Your task to perform on an android device: turn on the 12-hour format for clock Image 0: 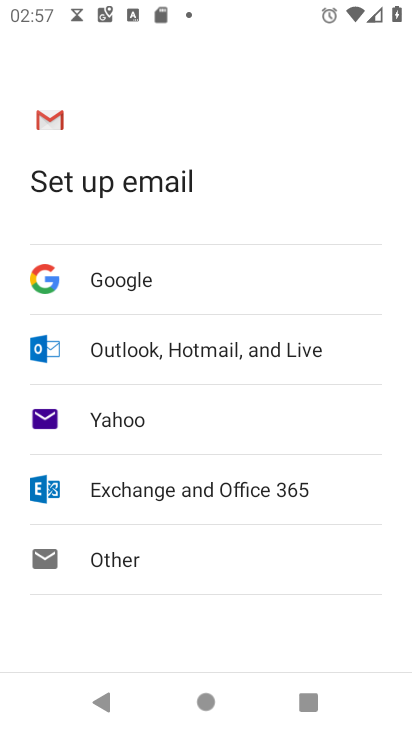
Step 0: press home button
Your task to perform on an android device: turn on the 12-hour format for clock Image 1: 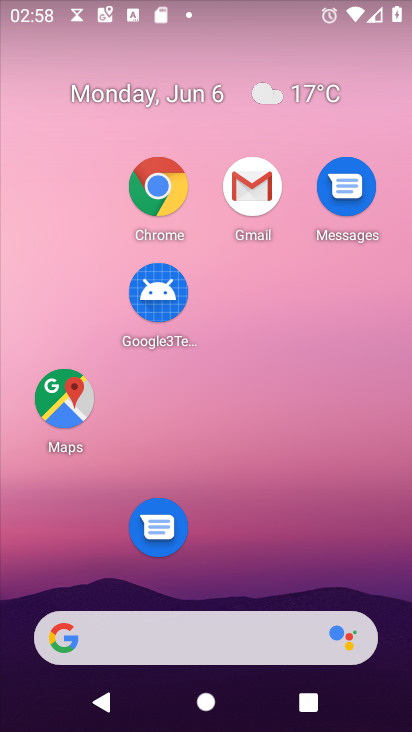
Step 1: drag from (295, 455) to (281, 99)
Your task to perform on an android device: turn on the 12-hour format for clock Image 2: 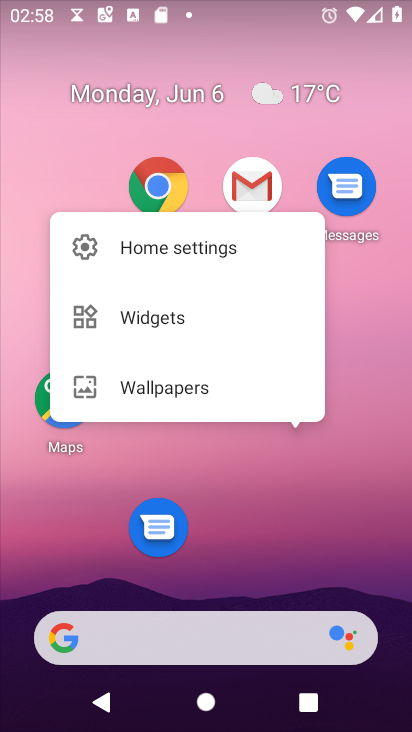
Step 2: click (345, 449)
Your task to perform on an android device: turn on the 12-hour format for clock Image 3: 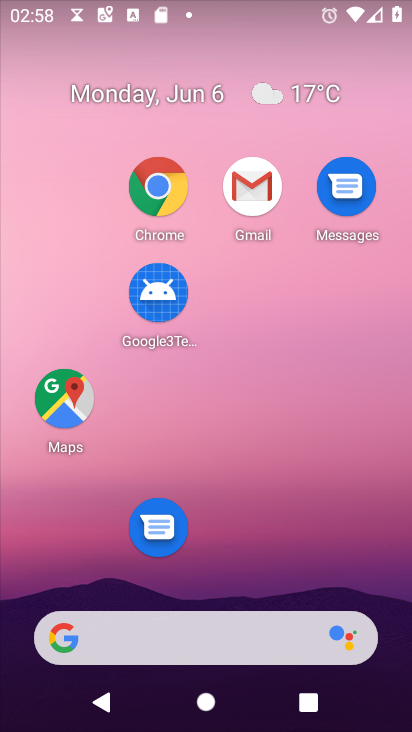
Step 3: drag from (270, 511) to (262, 219)
Your task to perform on an android device: turn on the 12-hour format for clock Image 4: 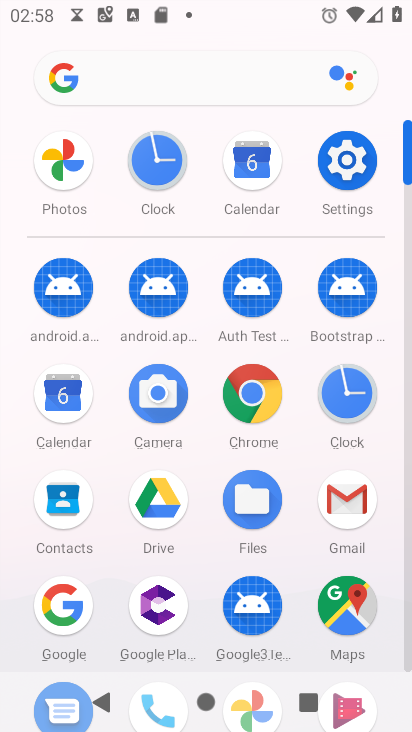
Step 4: click (158, 179)
Your task to perform on an android device: turn on the 12-hour format for clock Image 5: 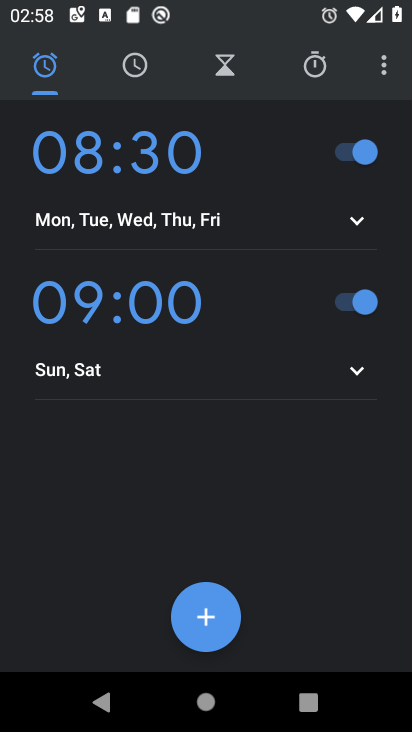
Step 5: click (366, 80)
Your task to perform on an android device: turn on the 12-hour format for clock Image 6: 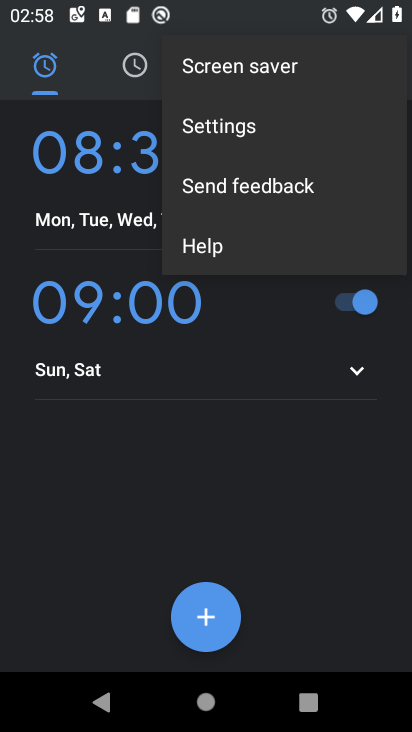
Step 6: click (201, 134)
Your task to perform on an android device: turn on the 12-hour format for clock Image 7: 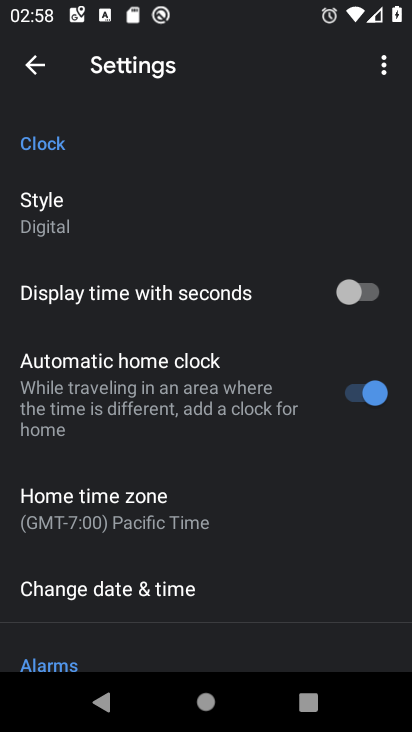
Step 7: drag from (296, 520) to (250, 135)
Your task to perform on an android device: turn on the 12-hour format for clock Image 8: 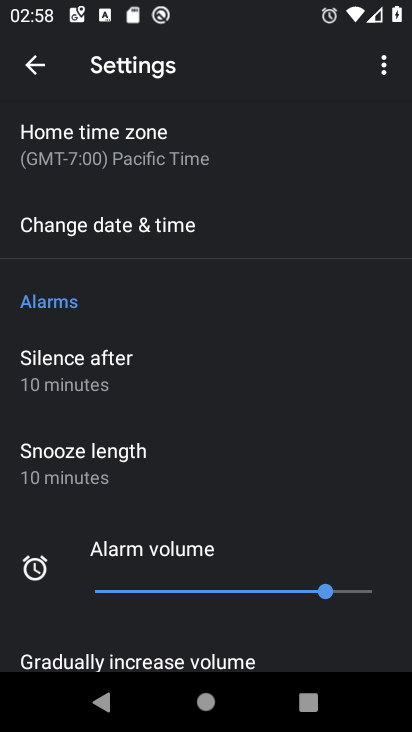
Step 8: click (234, 214)
Your task to perform on an android device: turn on the 12-hour format for clock Image 9: 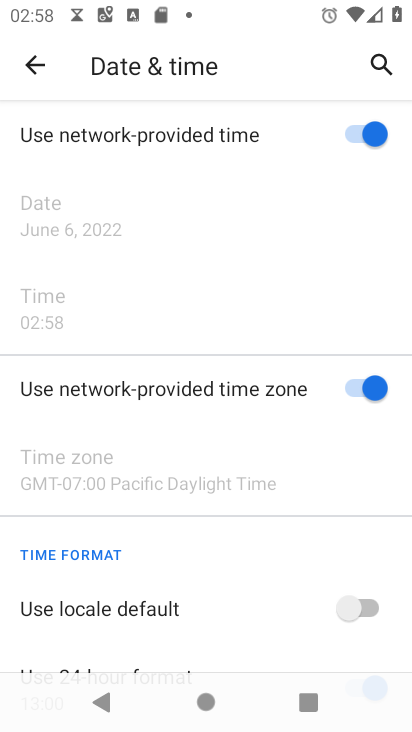
Step 9: drag from (203, 421) to (192, 141)
Your task to perform on an android device: turn on the 12-hour format for clock Image 10: 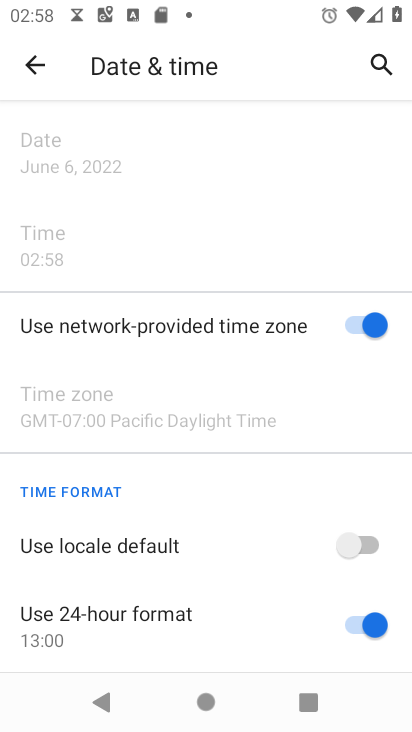
Step 10: click (359, 626)
Your task to perform on an android device: turn on the 12-hour format for clock Image 11: 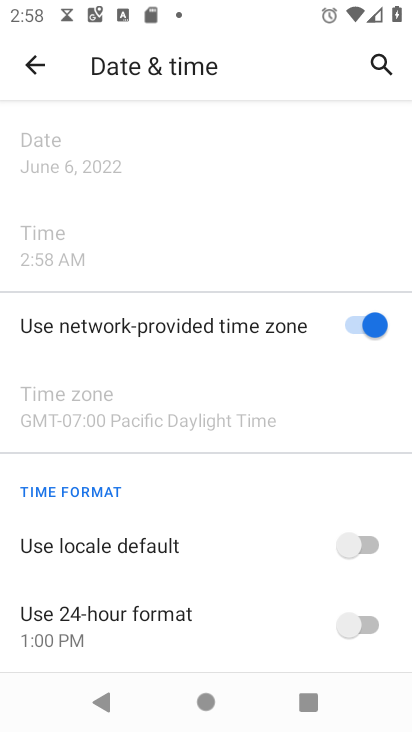
Step 11: task complete